Your task to perform on an android device: turn on showing notifications on the lock screen Image 0: 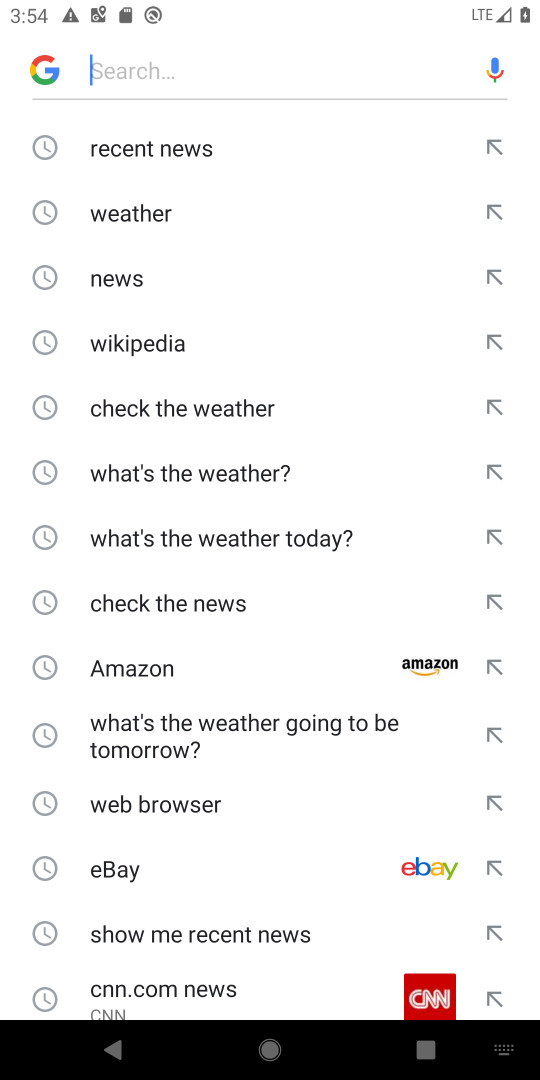
Step 0: press back button
Your task to perform on an android device: turn on showing notifications on the lock screen Image 1: 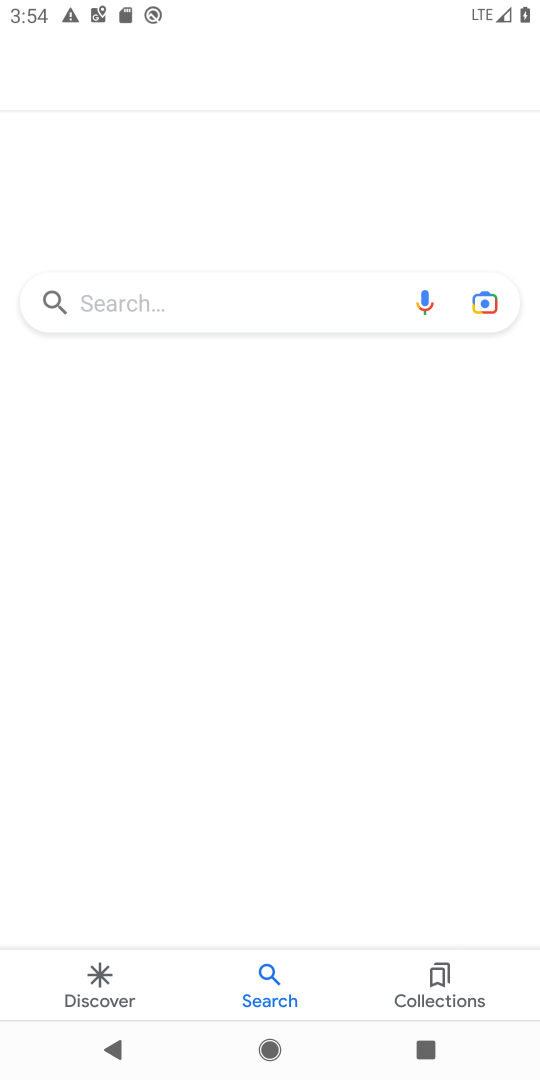
Step 1: press back button
Your task to perform on an android device: turn on showing notifications on the lock screen Image 2: 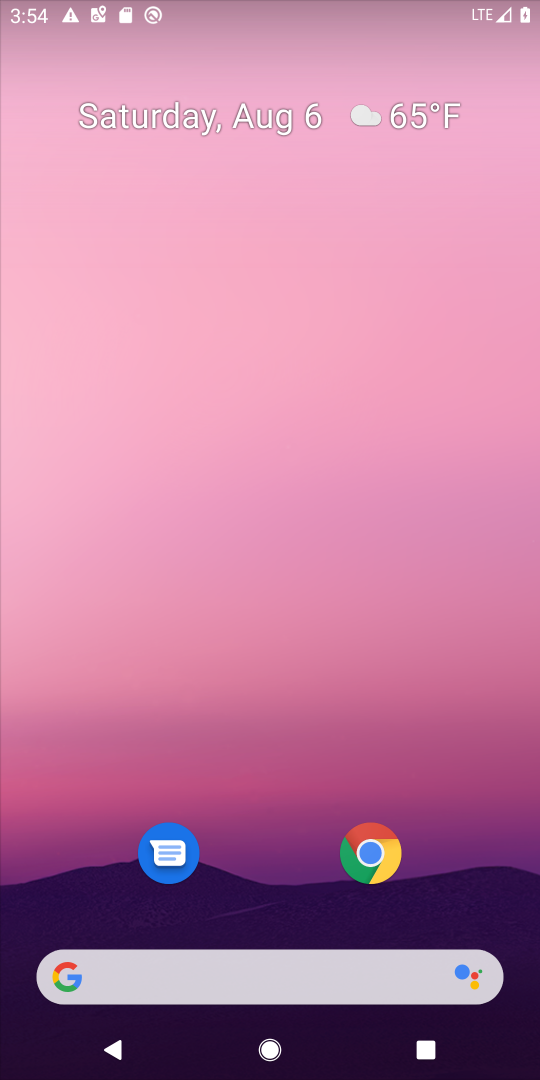
Step 2: drag from (253, 934) to (298, 132)
Your task to perform on an android device: turn on showing notifications on the lock screen Image 3: 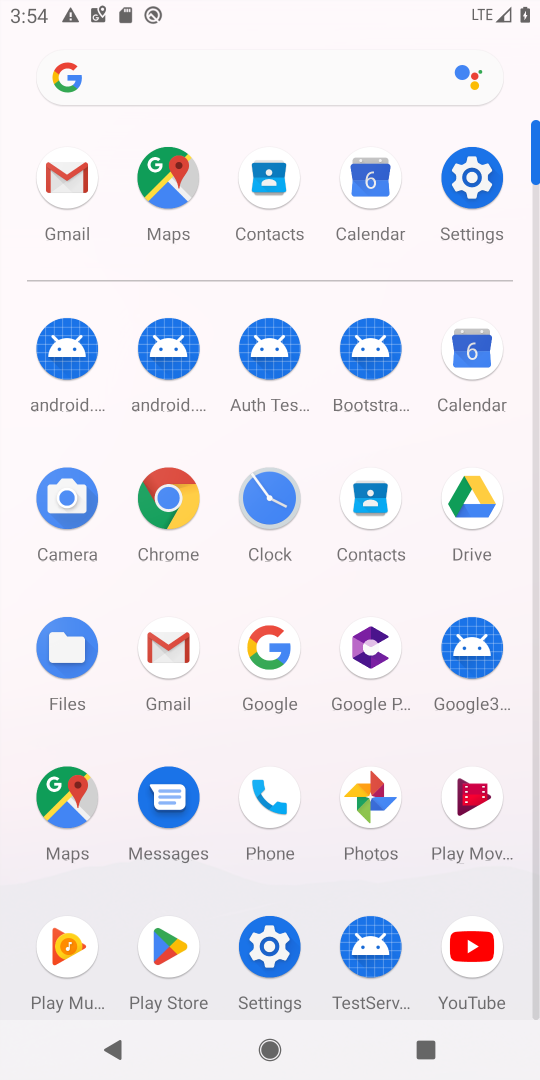
Step 3: click (468, 166)
Your task to perform on an android device: turn on showing notifications on the lock screen Image 4: 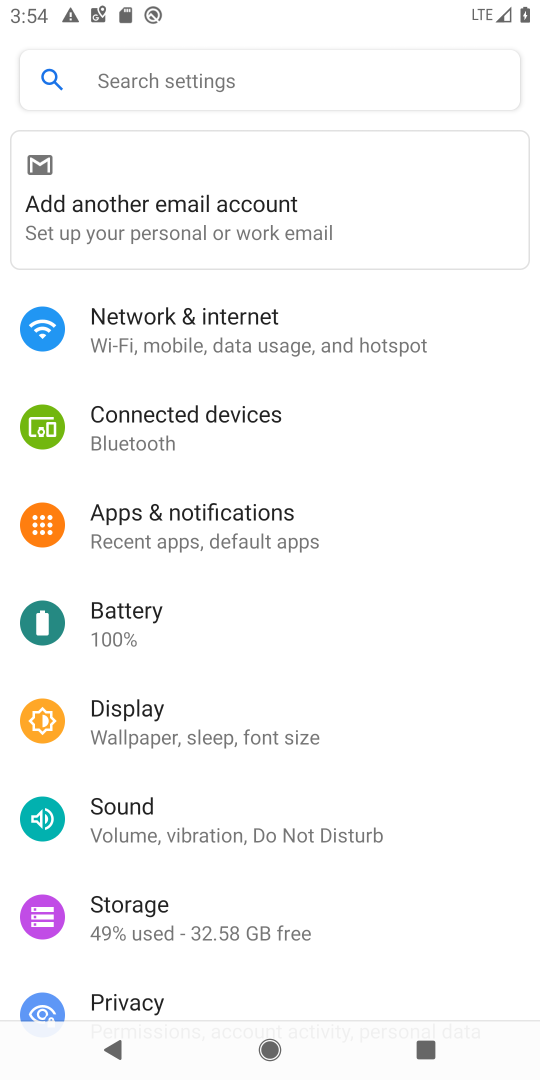
Step 4: click (214, 515)
Your task to perform on an android device: turn on showing notifications on the lock screen Image 5: 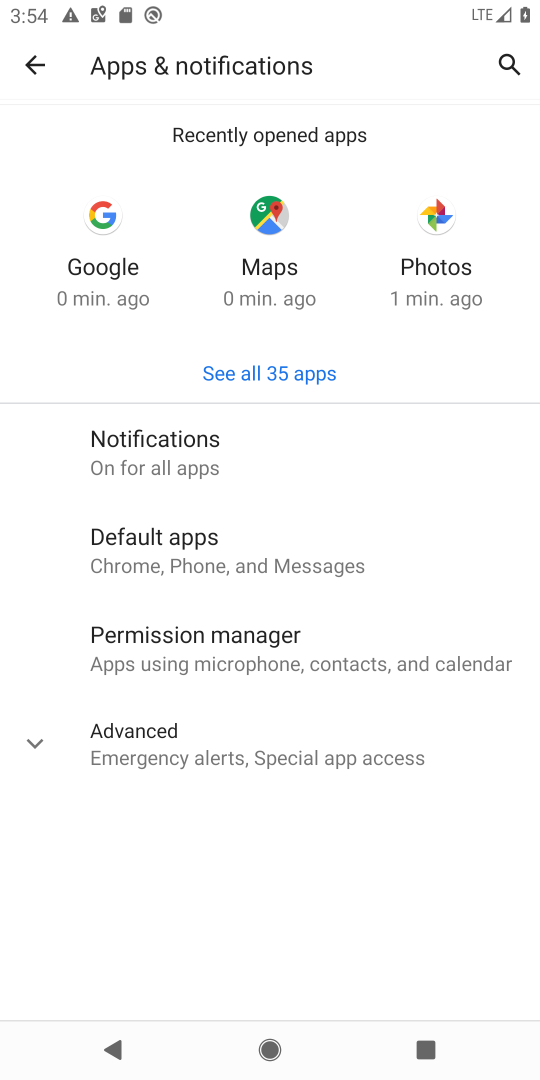
Step 5: click (278, 746)
Your task to perform on an android device: turn on showing notifications on the lock screen Image 6: 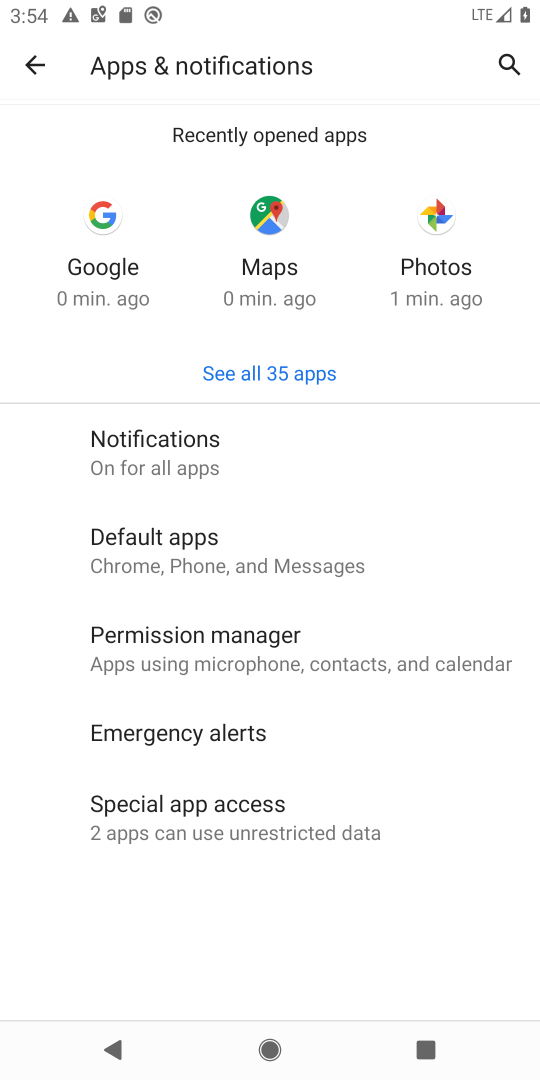
Step 6: click (182, 440)
Your task to perform on an android device: turn on showing notifications on the lock screen Image 7: 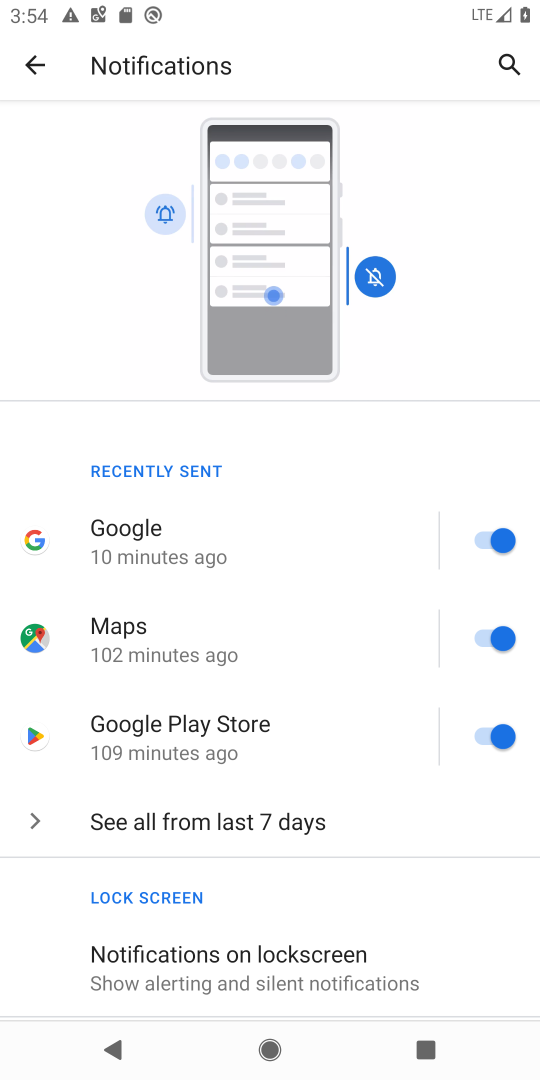
Step 7: click (243, 957)
Your task to perform on an android device: turn on showing notifications on the lock screen Image 8: 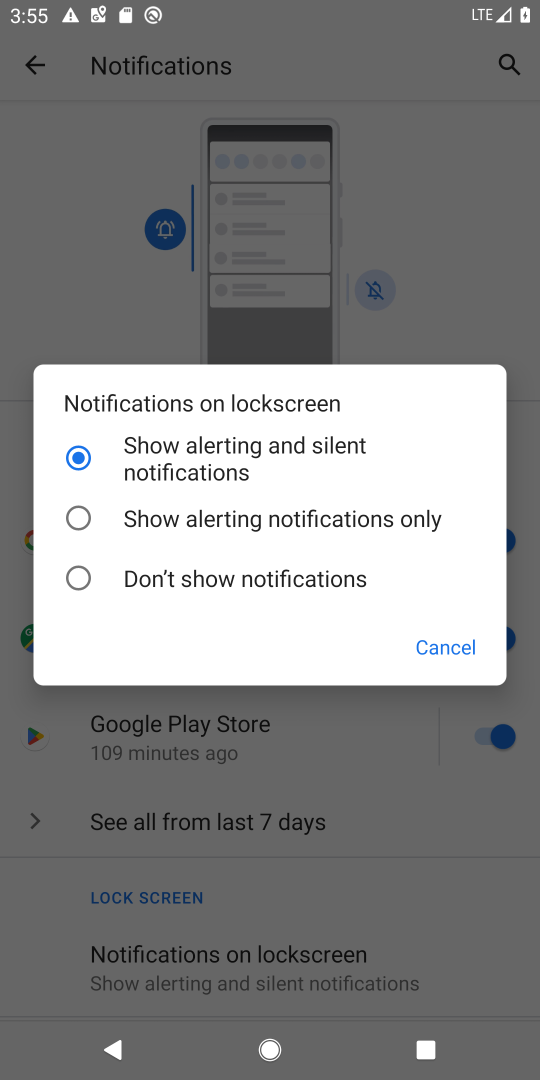
Step 8: click (141, 459)
Your task to perform on an android device: turn on showing notifications on the lock screen Image 9: 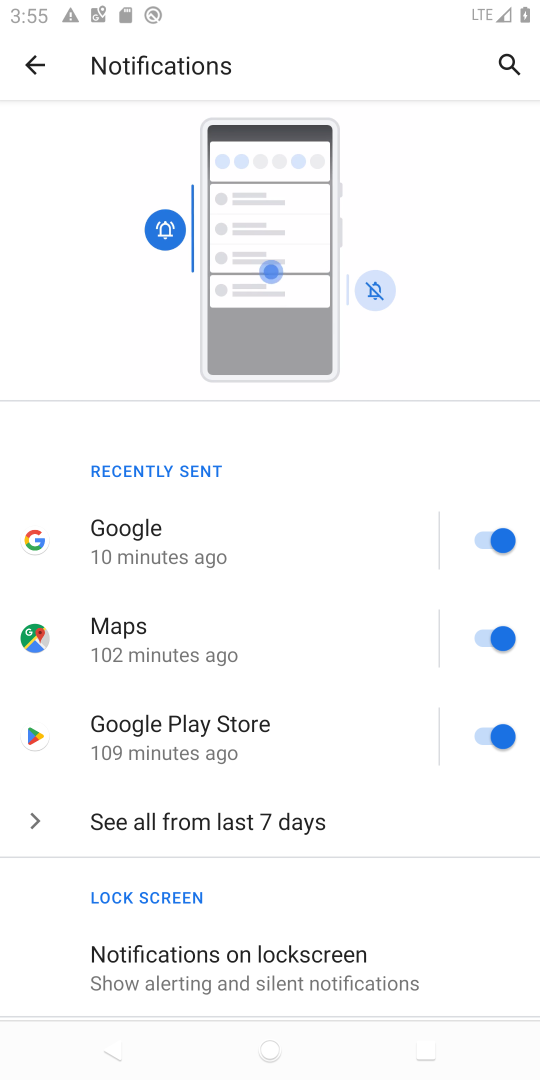
Step 9: task complete